Your task to perform on an android device: clear all cookies in the chrome app Image 0: 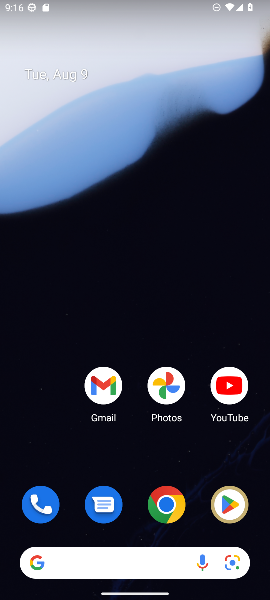
Step 0: click (165, 503)
Your task to perform on an android device: clear all cookies in the chrome app Image 1: 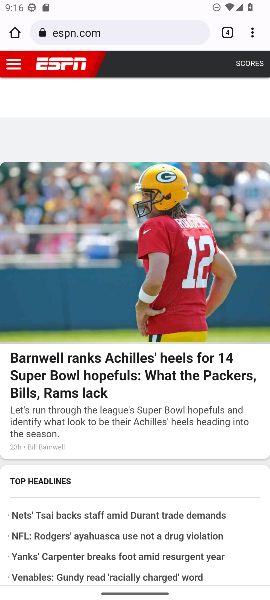
Step 1: click (245, 26)
Your task to perform on an android device: clear all cookies in the chrome app Image 2: 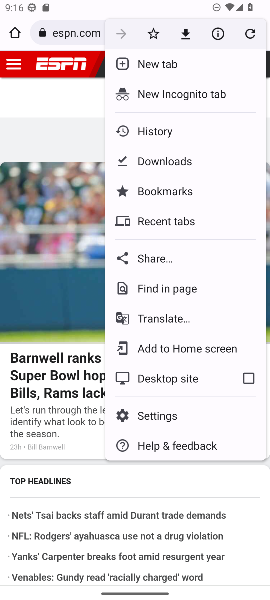
Step 2: click (149, 125)
Your task to perform on an android device: clear all cookies in the chrome app Image 3: 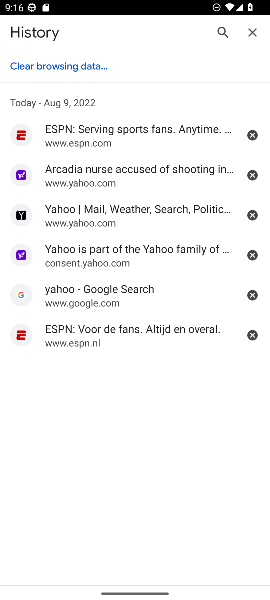
Step 3: click (49, 64)
Your task to perform on an android device: clear all cookies in the chrome app Image 4: 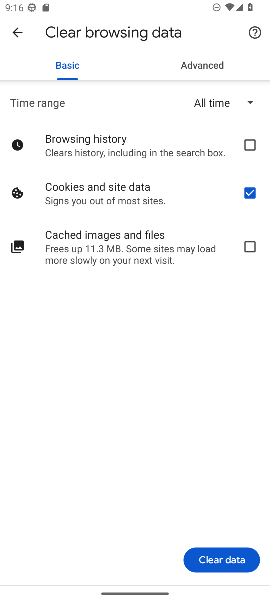
Step 4: click (229, 559)
Your task to perform on an android device: clear all cookies in the chrome app Image 5: 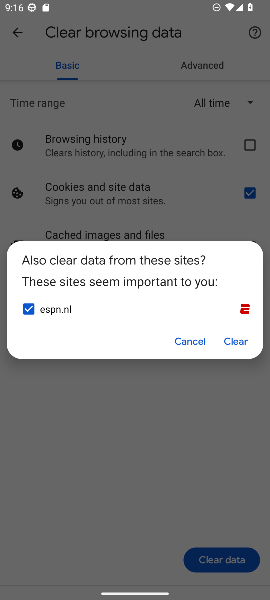
Step 5: click (237, 340)
Your task to perform on an android device: clear all cookies in the chrome app Image 6: 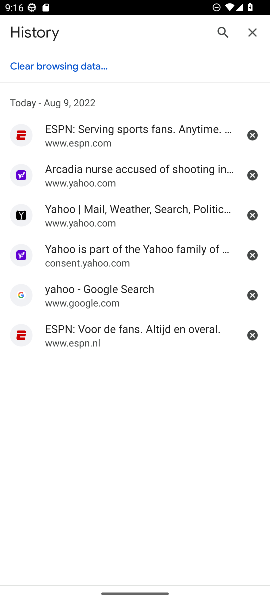
Step 6: task complete